Your task to perform on an android device: uninstall "Google Pay: Save, Pay, Manage" Image 0: 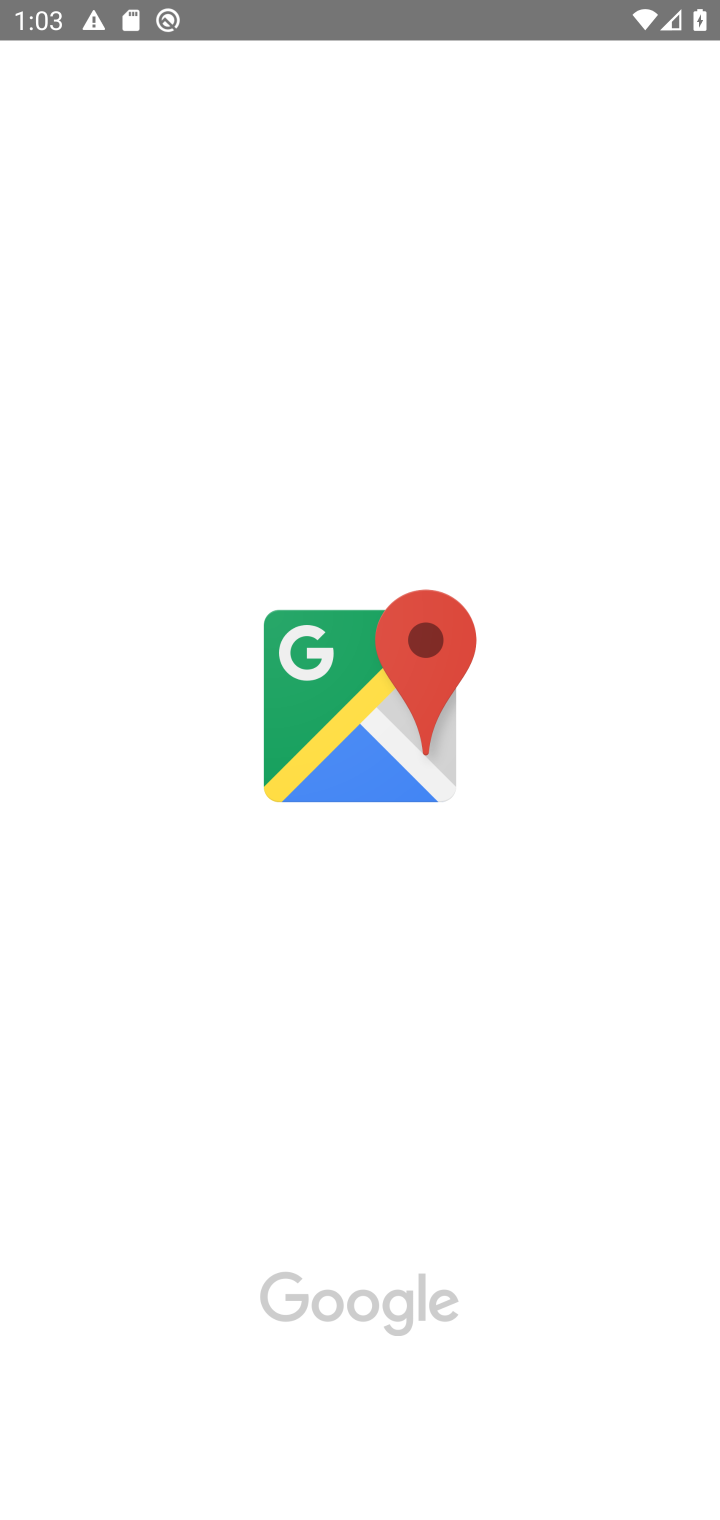
Step 0: press home button
Your task to perform on an android device: uninstall "Google Pay: Save, Pay, Manage" Image 1: 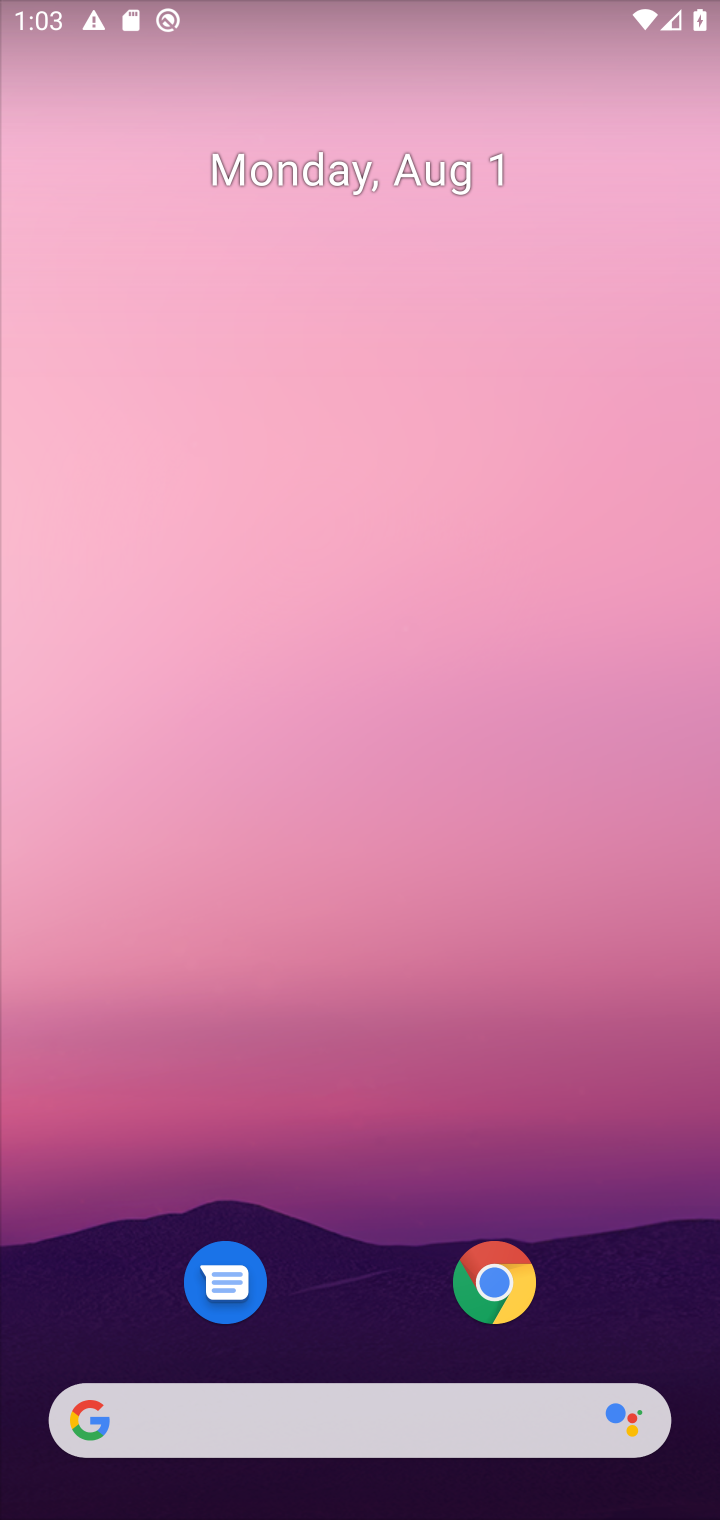
Step 1: drag from (430, 1334) to (263, 149)
Your task to perform on an android device: uninstall "Google Pay: Save, Pay, Manage" Image 2: 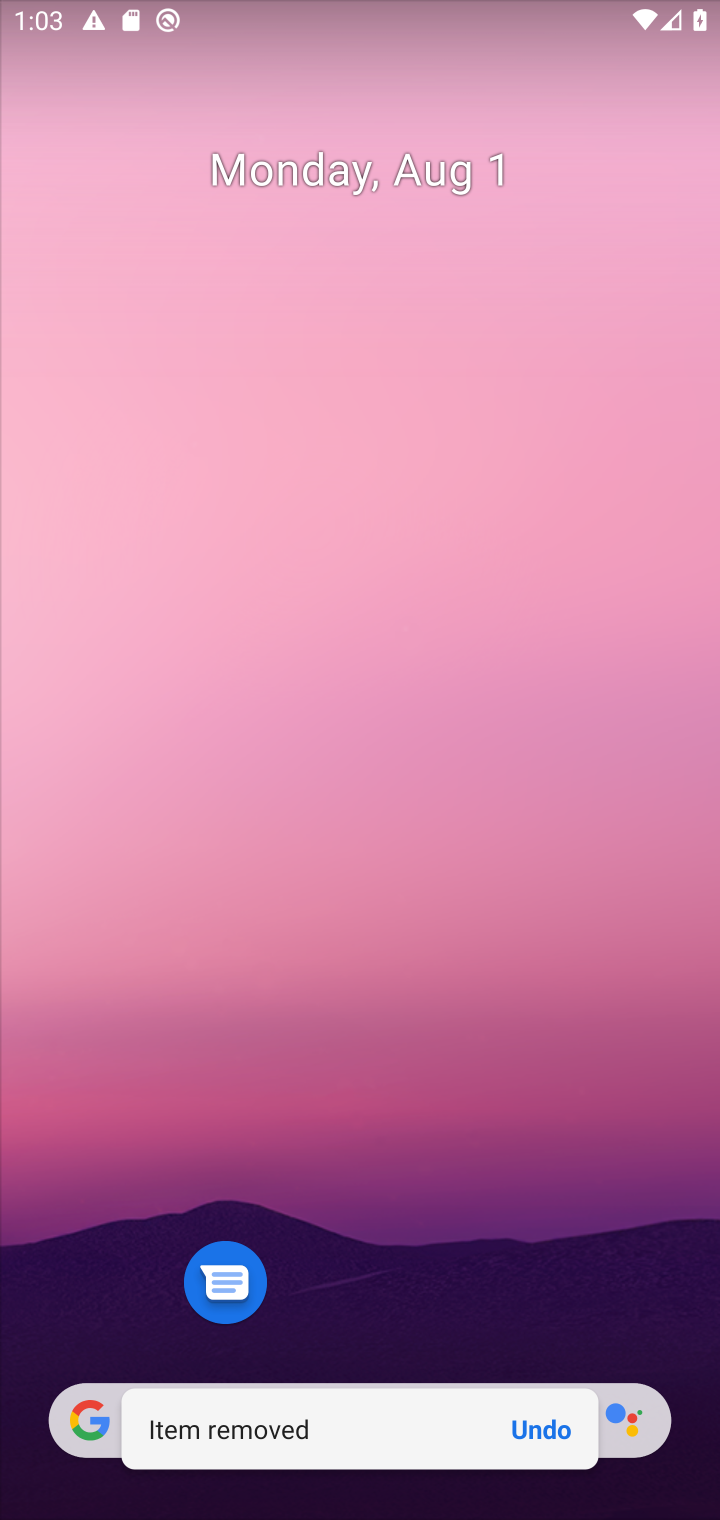
Step 2: drag from (387, 1295) to (339, 38)
Your task to perform on an android device: uninstall "Google Pay: Save, Pay, Manage" Image 3: 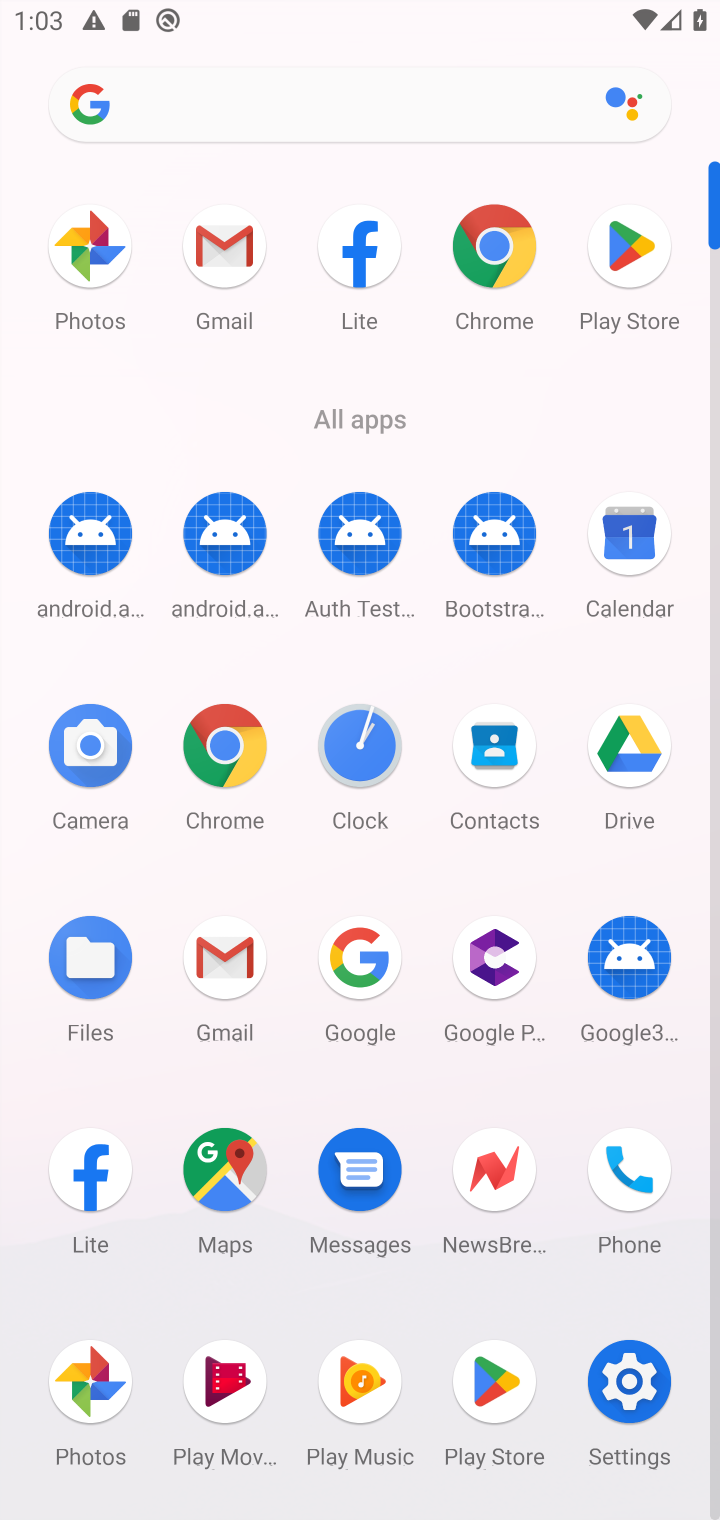
Step 3: click (459, 1388)
Your task to perform on an android device: uninstall "Google Pay: Save, Pay, Manage" Image 4: 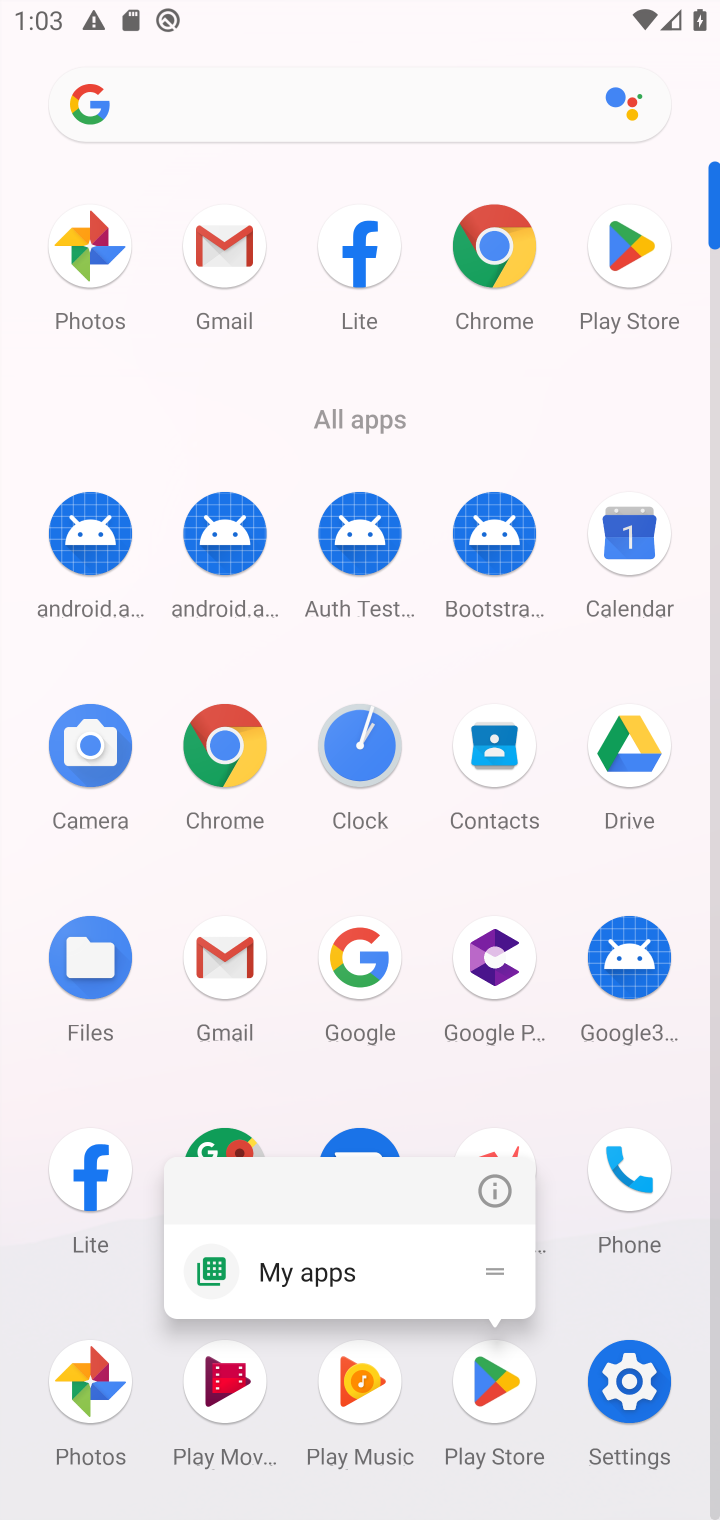
Step 4: click (462, 1390)
Your task to perform on an android device: uninstall "Google Pay: Save, Pay, Manage" Image 5: 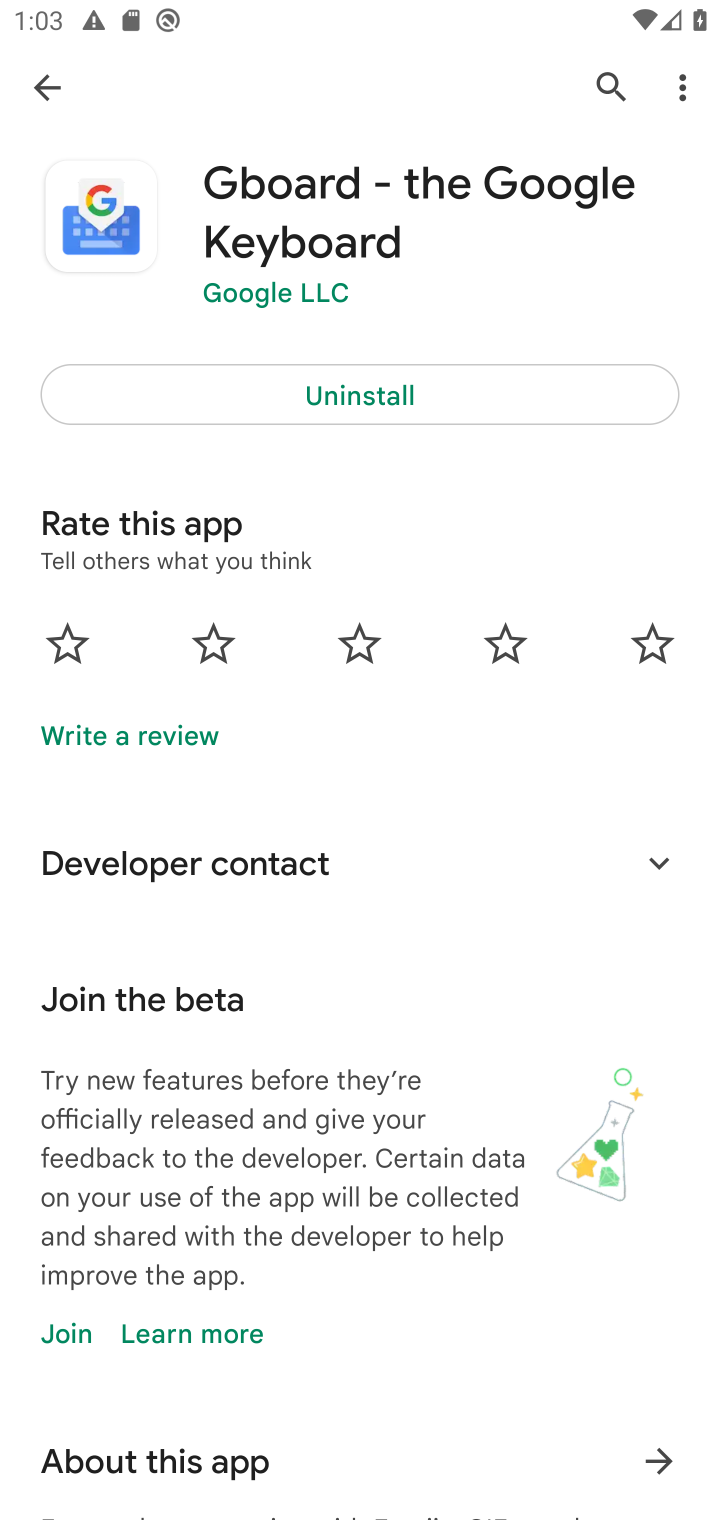
Step 5: click (45, 83)
Your task to perform on an android device: uninstall "Google Pay: Save, Pay, Manage" Image 6: 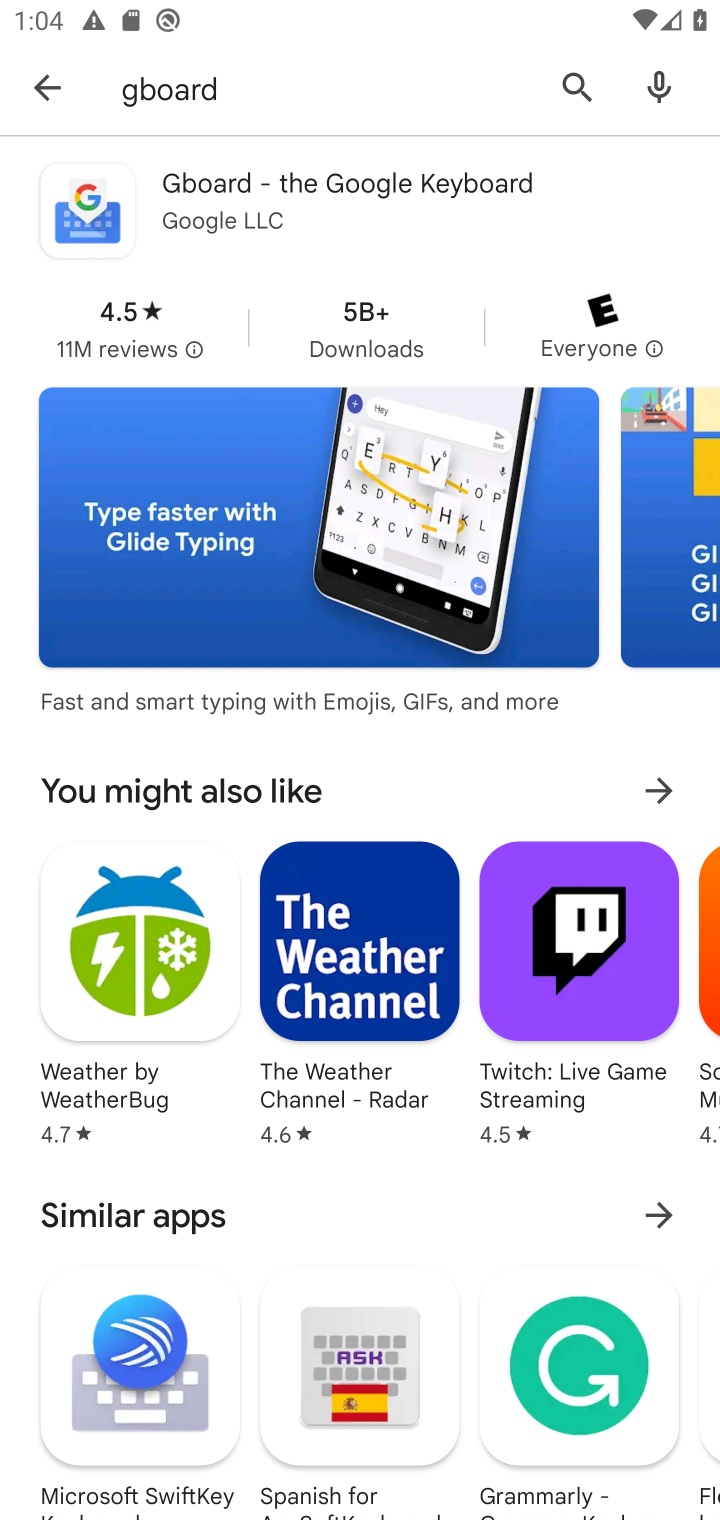
Step 6: click (37, 78)
Your task to perform on an android device: uninstall "Google Pay: Save, Pay, Manage" Image 7: 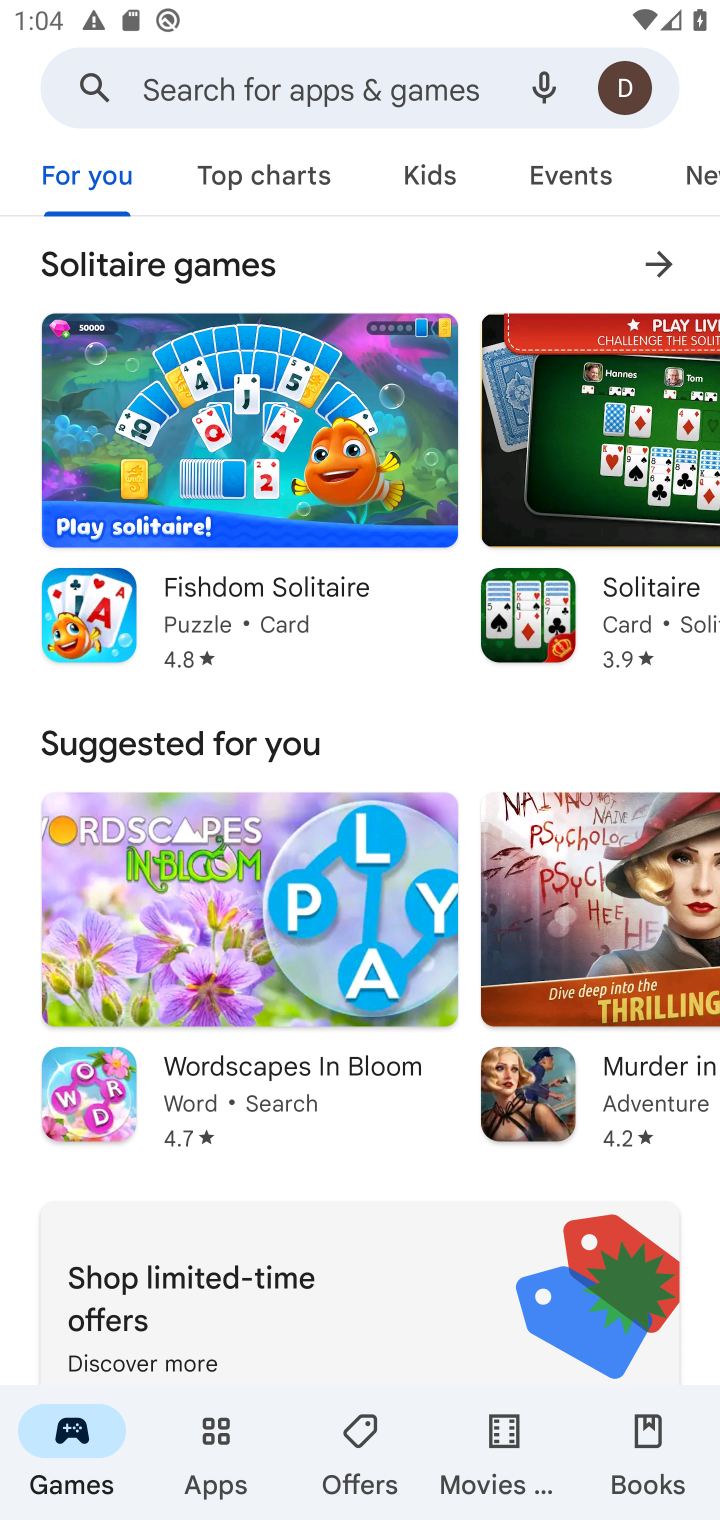
Step 7: click (157, 107)
Your task to perform on an android device: uninstall "Google Pay: Save, Pay, Manage" Image 8: 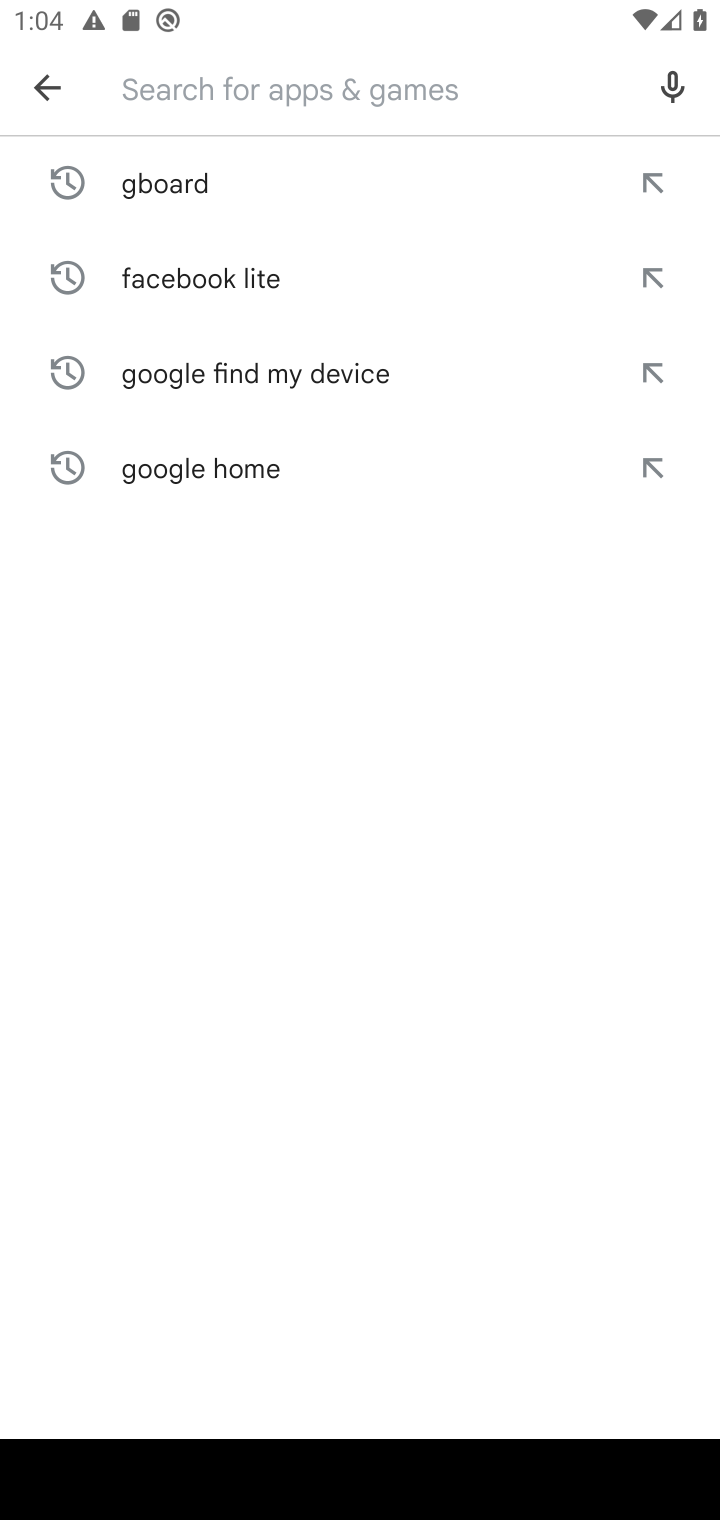
Step 8: type "Google Pay: Save, Pay, Manage"
Your task to perform on an android device: uninstall "Google Pay: Save, Pay, Manage" Image 9: 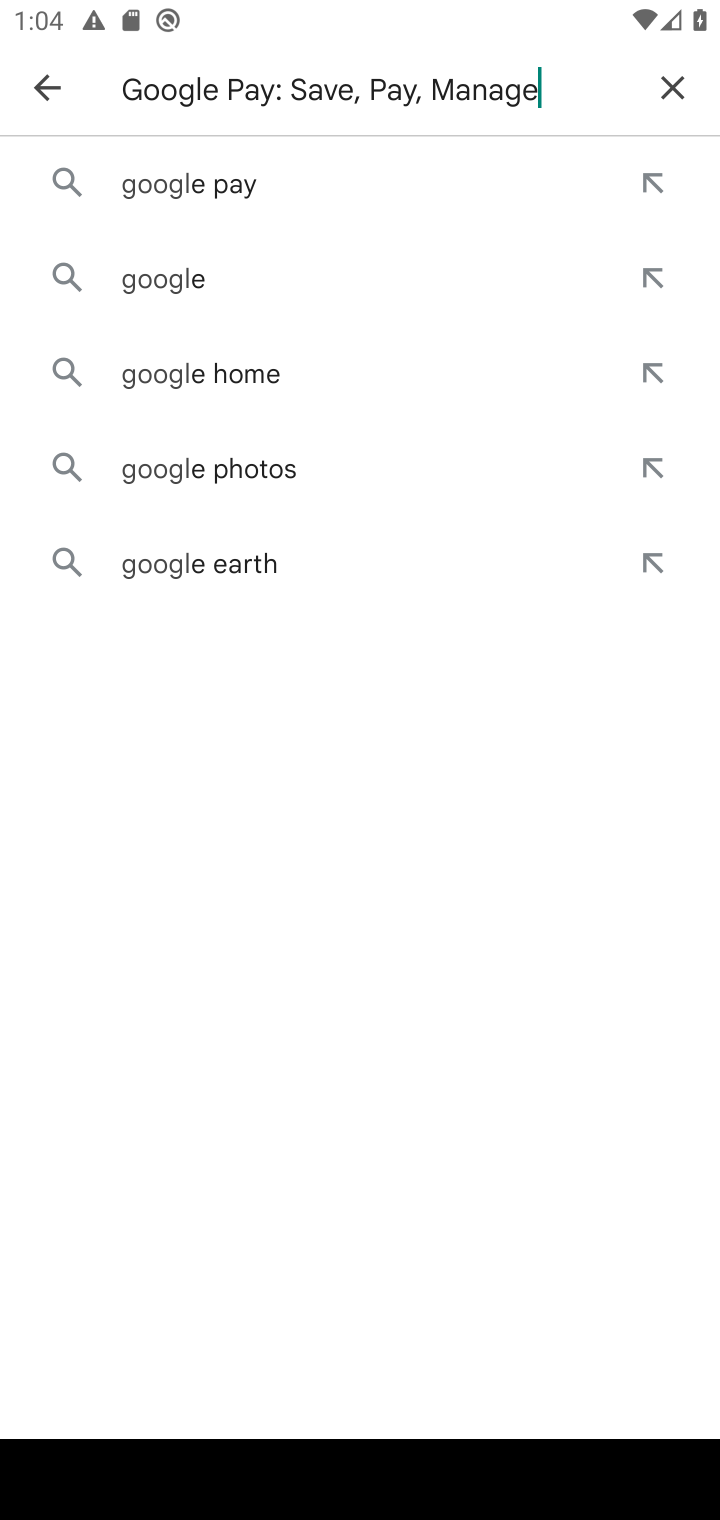
Step 9: type ""
Your task to perform on an android device: uninstall "Google Pay: Save, Pay, Manage" Image 10: 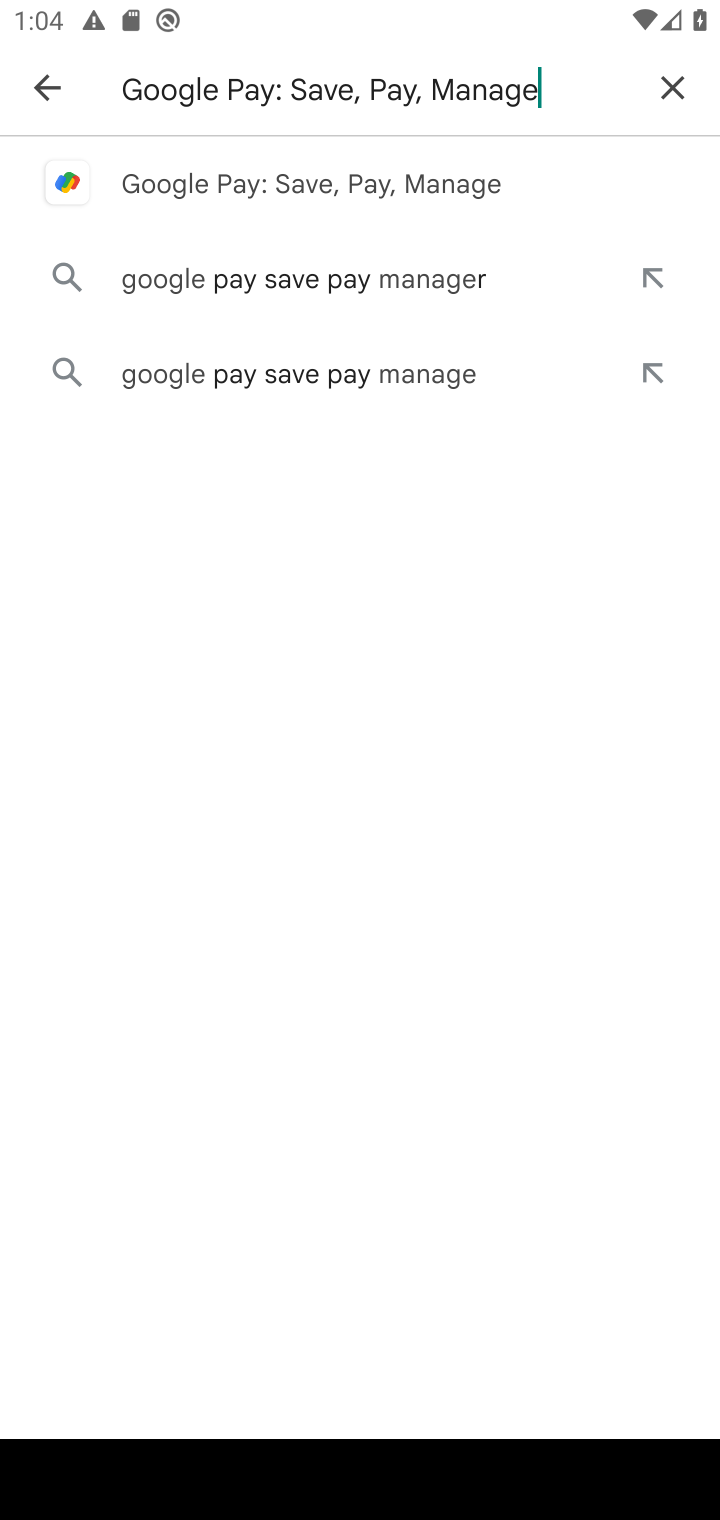
Step 10: click (244, 170)
Your task to perform on an android device: uninstall "Google Pay: Save, Pay, Manage" Image 11: 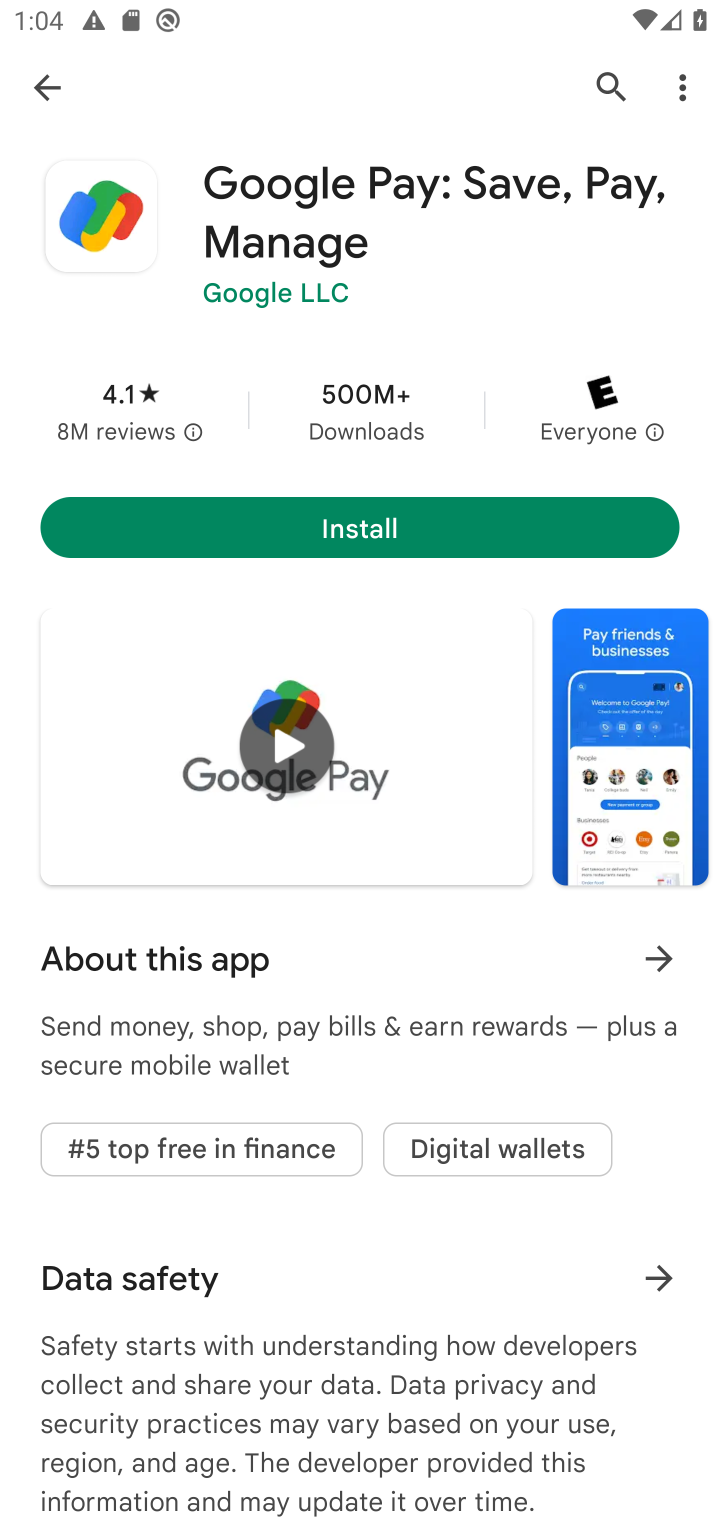
Step 11: task complete